Your task to perform on an android device: Open Chrome and go to settings Image 0: 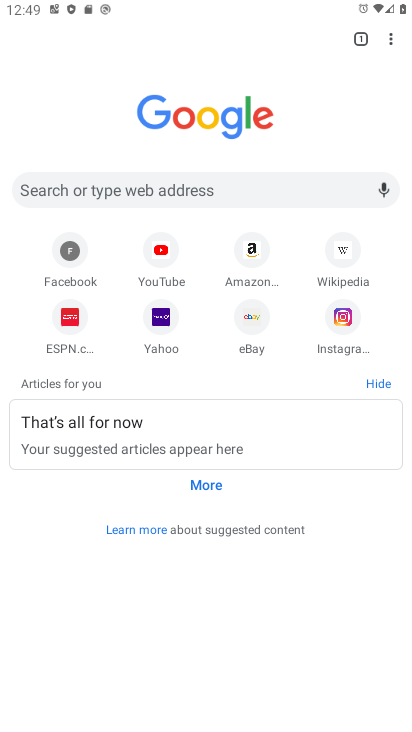
Step 0: press home button
Your task to perform on an android device: Open Chrome and go to settings Image 1: 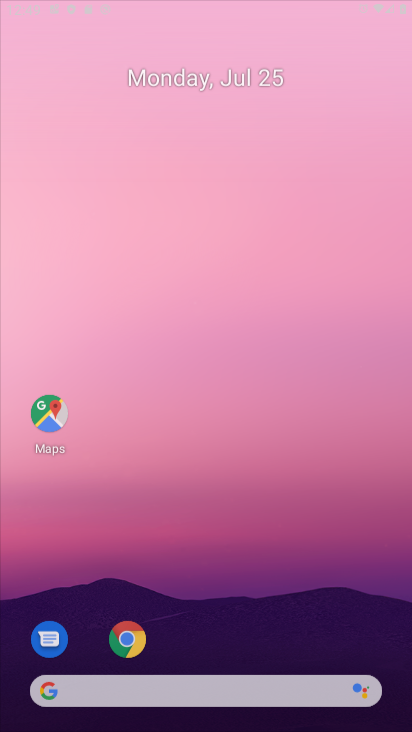
Step 1: drag from (389, 684) to (161, 6)
Your task to perform on an android device: Open Chrome and go to settings Image 2: 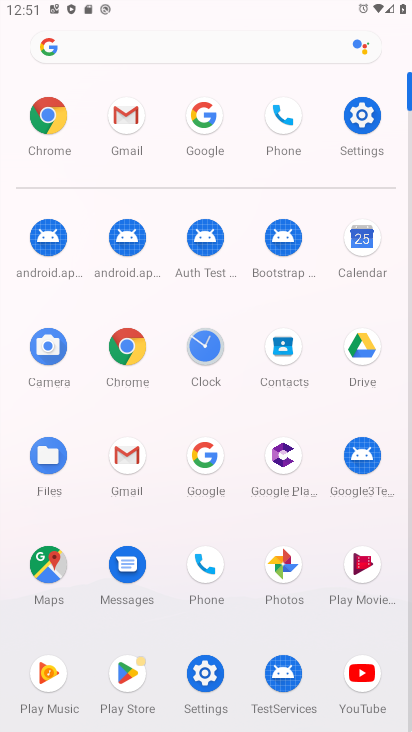
Step 2: click (137, 350)
Your task to perform on an android device: Open Chrome and go to settings Image 3: 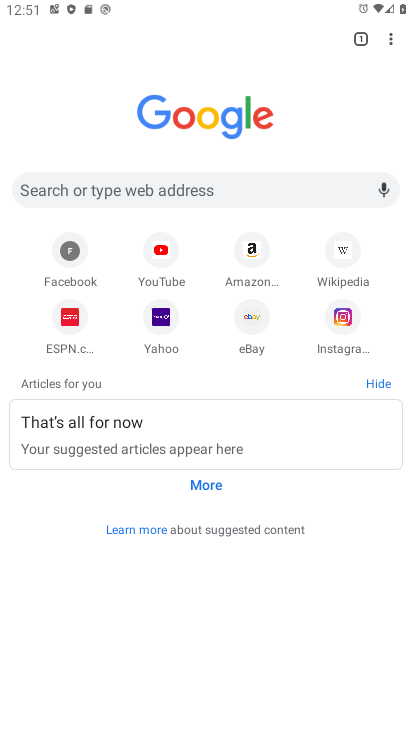
Step 3: click (394, 36)
Your task to perform on an android device: Open Chrome and go to settings Image 4: 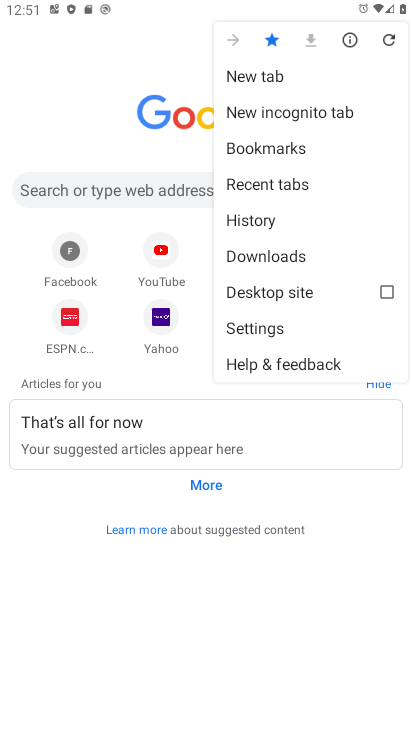
Step 4: click (285, 329)
Your task to perform on an android device: Open Chrome and go to settings Image 5: 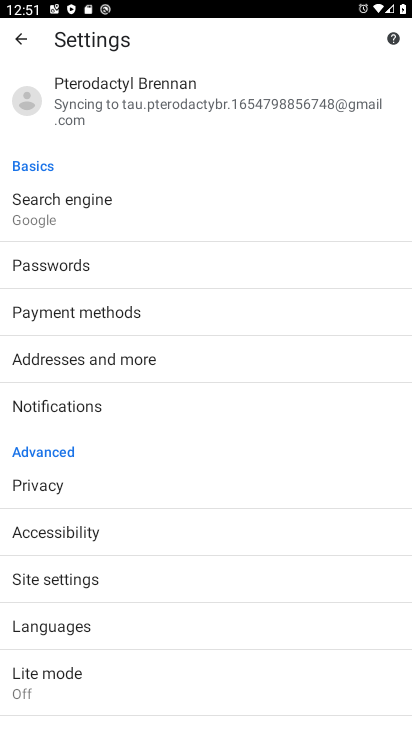
Step 5: task complete